Your task to perform on an android device: Open network settings Image 0: 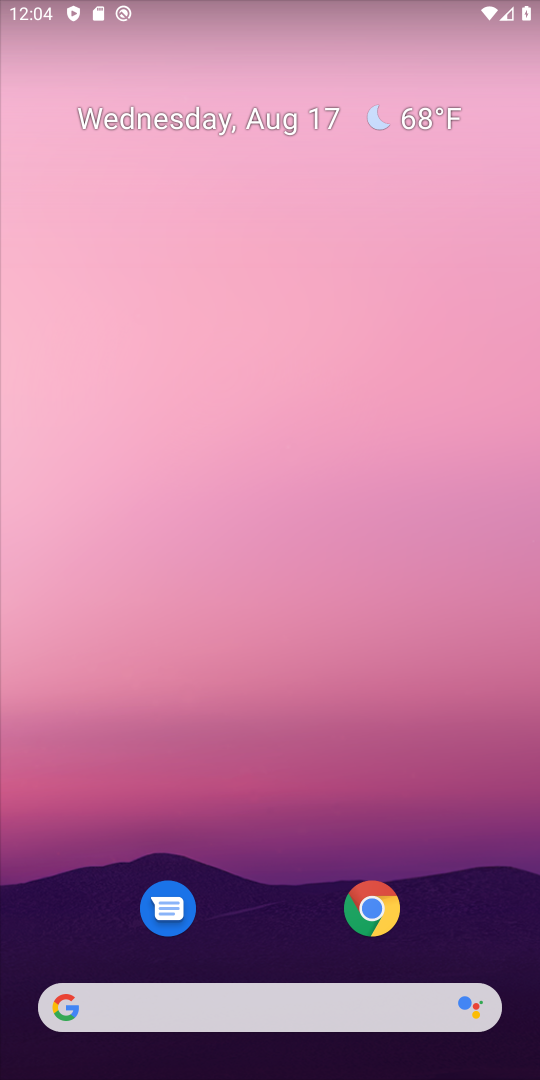
Step 0: drag from (276, 329) to (273, 98)
Your task to perform on an android device: Open network settings Image 1: 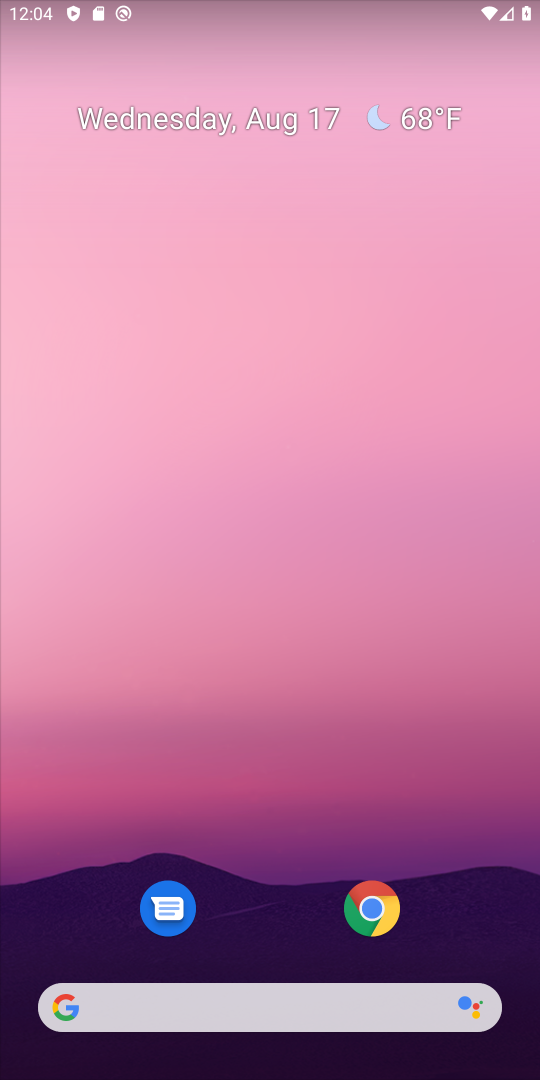
Step 1: drag from (233, 900) to (242, 245)
Your task to perform on an android device: Open network settings Image 2: 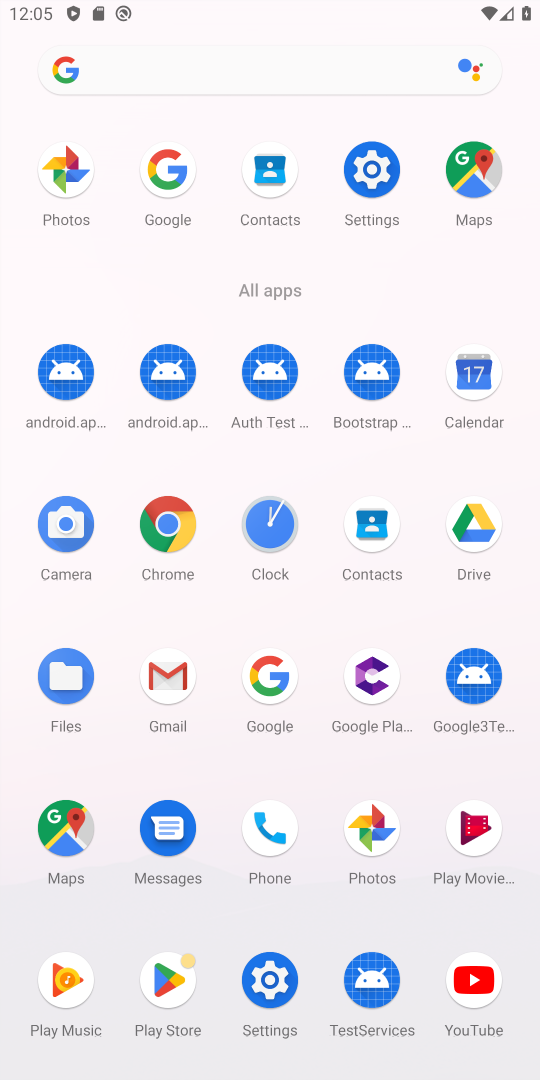
Step 2: click (368, 180)
Your task to perform on an android device: Open network settings Image 3: 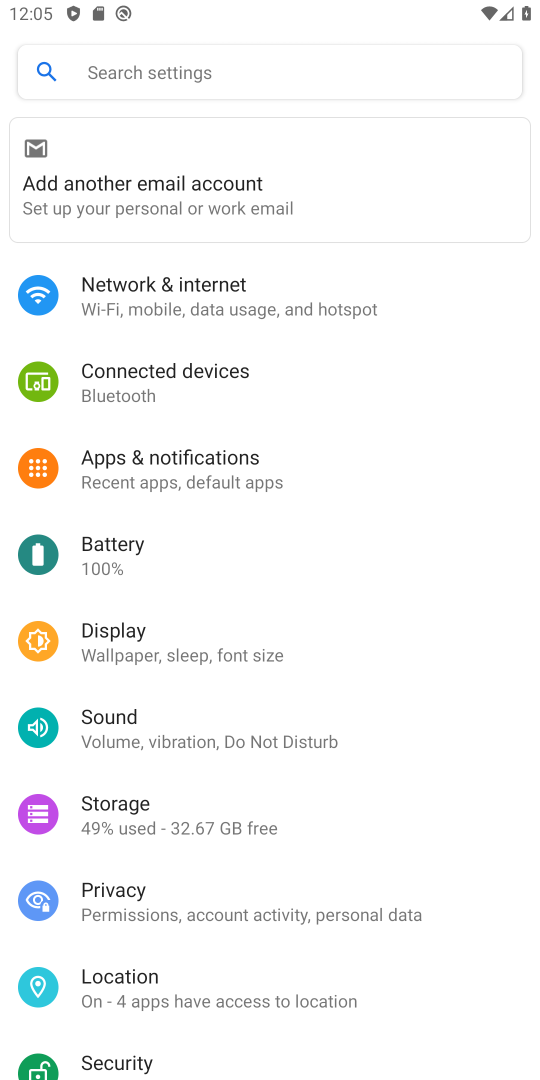
Step 3: click (173, 275)
Your task to perform on an android device: Open network settings Image 4: 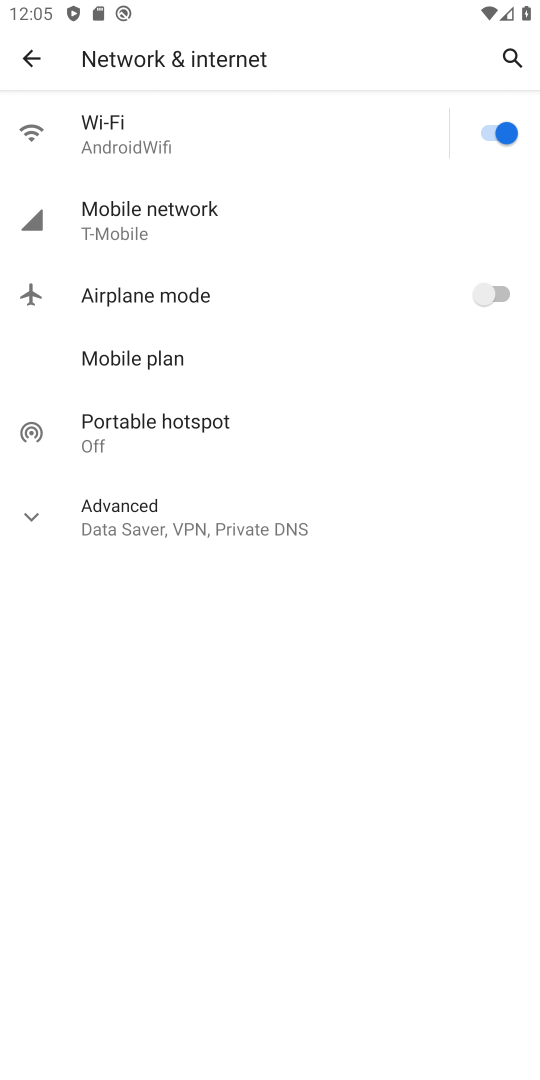
Step 4: task complete